Your task to perform on an android device: Do I have any events this weekend? Image 0: 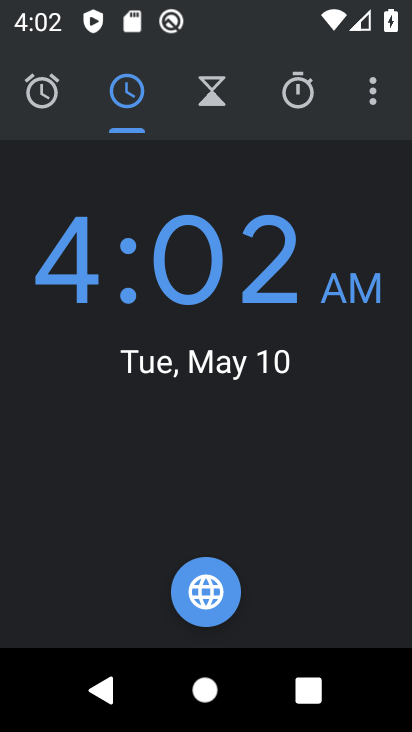
Step 0: press home button
Your task to perform on an android device: Do I have any events this weekend? Image 1: 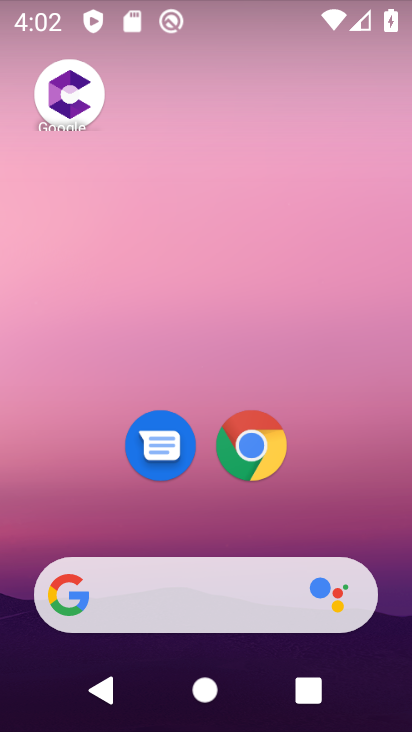
Step 1: drag from (201, 536) to (254, 14)
Your task to perform on an android device: Do I have any events this weekend? Image 2: 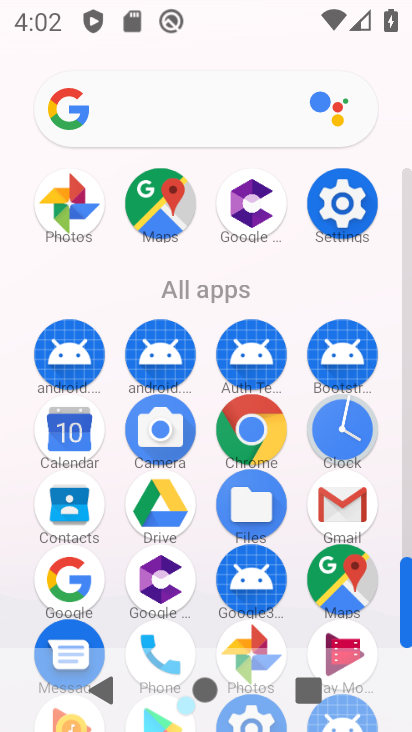
Step 2: click (72, 430)
Your task to perform on an android device: Do I have any events this weekend? Image 3: 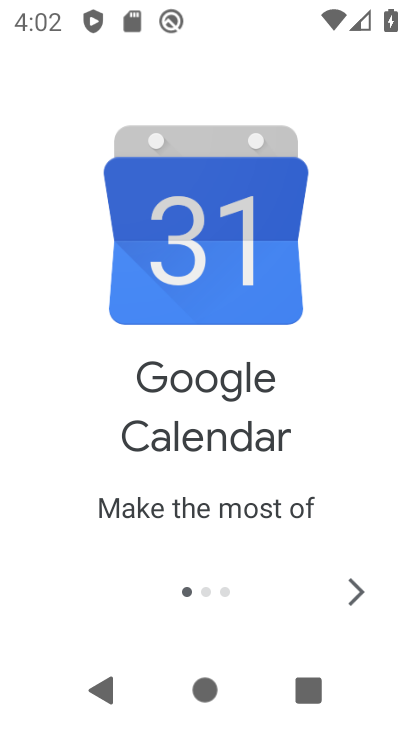
Step 3: click (341, 591)
Your task to perform on an android device: Do I have any events this weekend? Image 4: 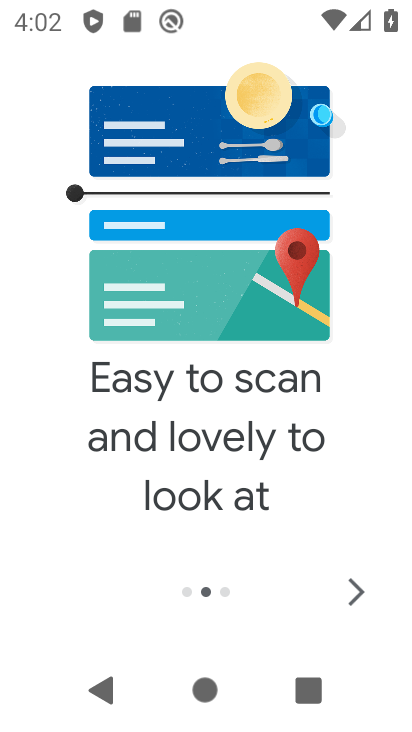
Step 4: click (356, 592)
Your task to perform on an android device: Do I have any events this weekend? Image 5: 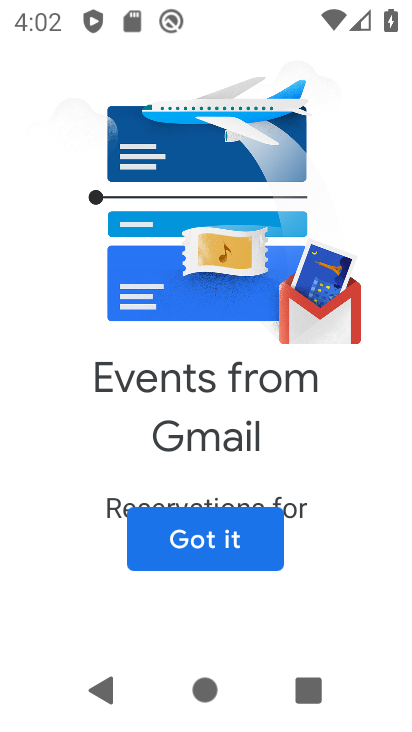
Step 5: click (356, 592)
Your task to perform on an android device: Do I have any events this weekend? Image 6: 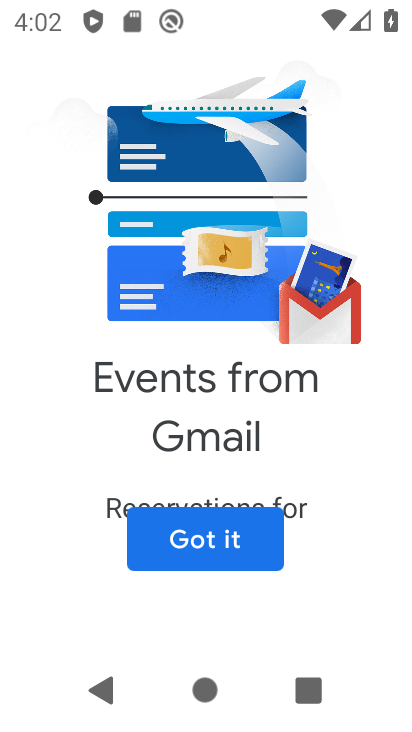
Step 6: click (215, 557)
Your task to perform on an android device: Do I have any events this weekend? Image 7: 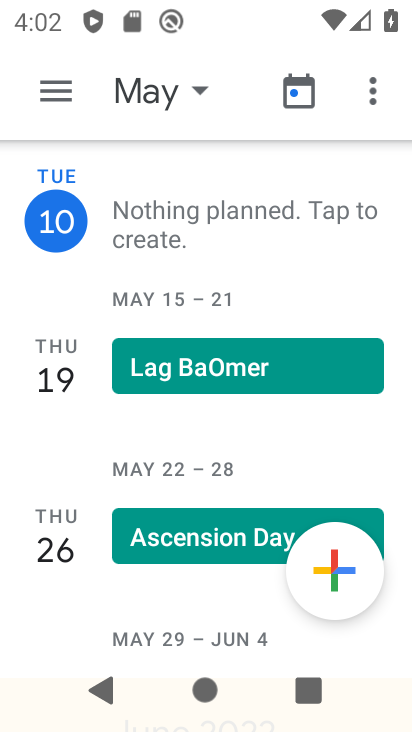
Step 7: click (58, 103)
Your task to perform on an android device: Do I have any events this weekend? Image 8: 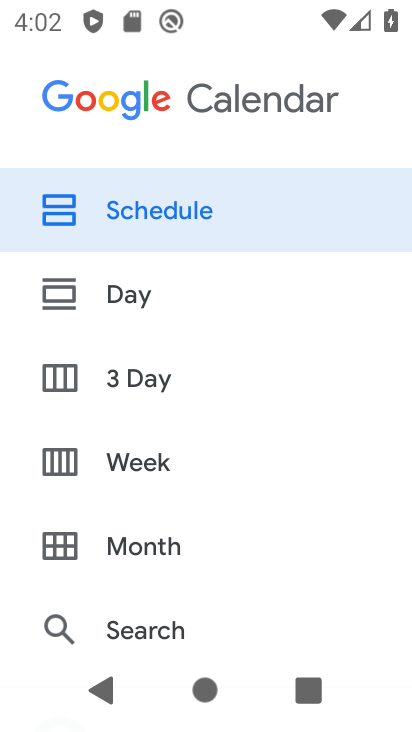
Step 8: drag from (157, 537) to (219, 296)
Your task to perform on an android device: Do I have any events this weekend? Image 9: 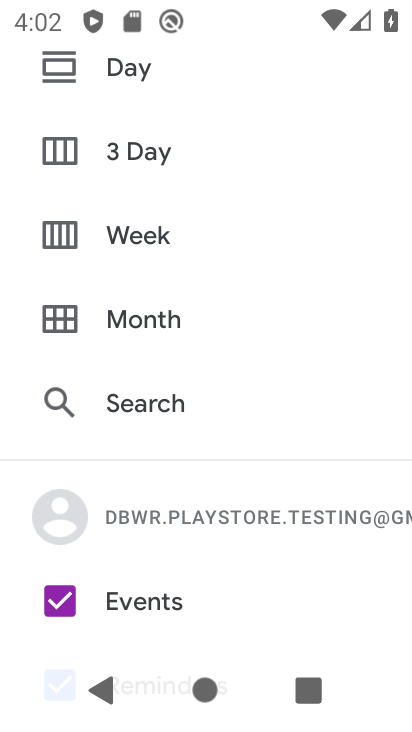
Step 9: drag from (161, 577) to (222, 219)
Your task to perform on an android device: Do I have any events this weekend? Image 10: 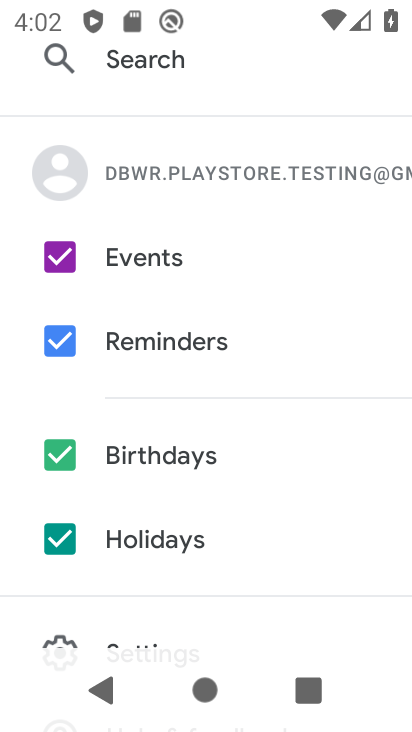
Step 10: click (136, 352)
Your task to perform on an android device: Do I have any events this weekend? Image 11: 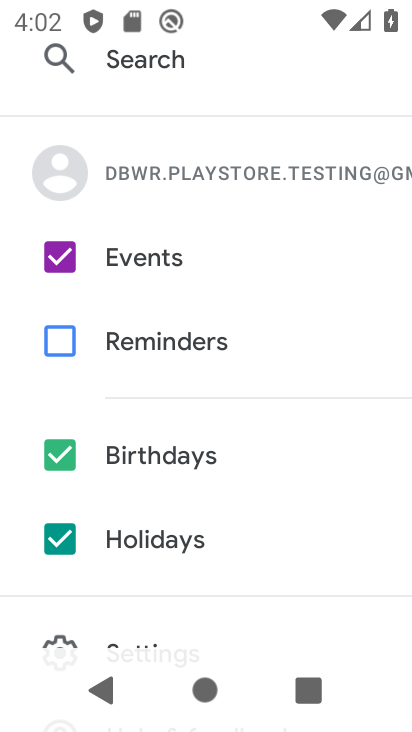
Step 11: click (119, 470)
Your task to perform on an android device: Do I have any events this weekend? Image 12: 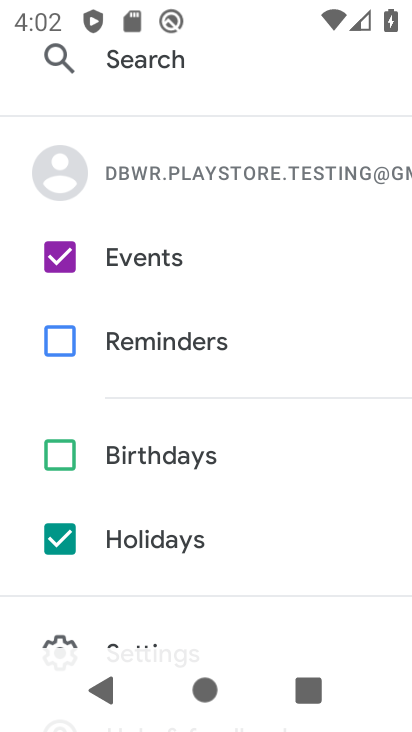
Step 12: click (109, 543)
Your task to perform on an android device: Do I have any events this weekend? Image 13: 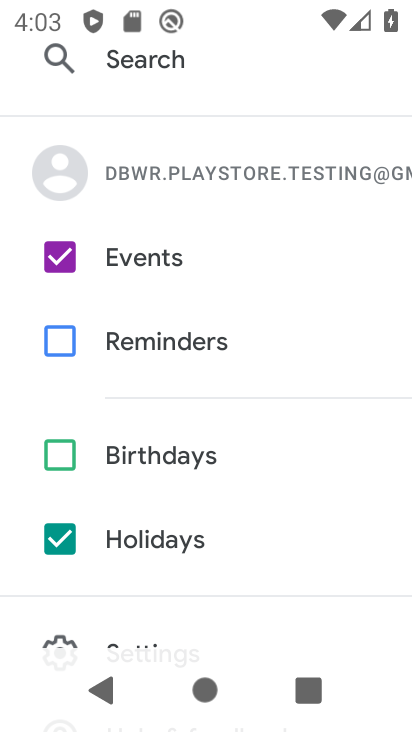
Step 13: click (145, 537)
Your task to perform on an android device: Do I have any events this weekend? Image 14: 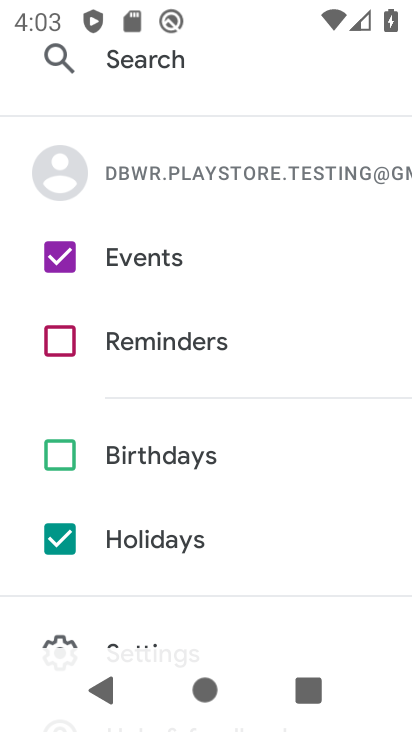
Step 14: click (64, 547)
Your task to perform on an android device: Do I have any events this weekend? Image 15: 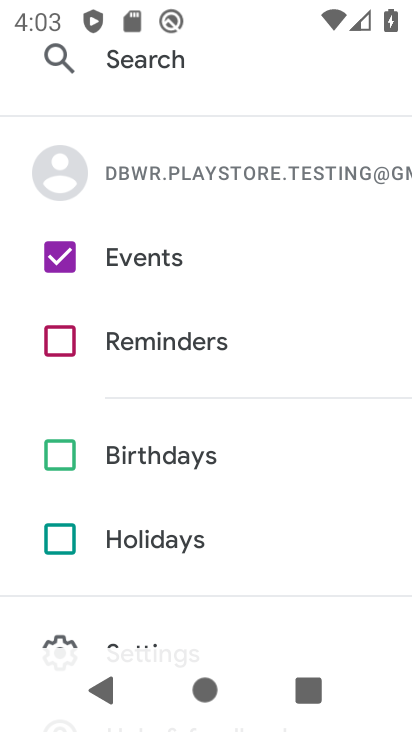
Step 15: drag from (285, 278) to (308, 693)
Your task to perform on an android device: Do I have any events this weekend? Image 16: 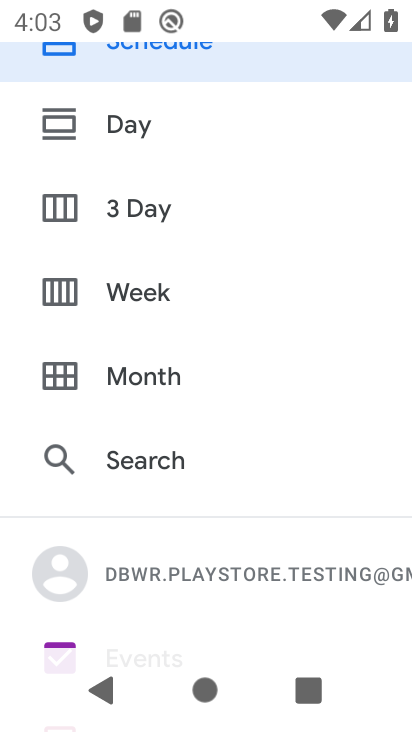
Step 16: click (164, 306)
Your task to perform on an android device: Do I have any events this weekend? Image 17: 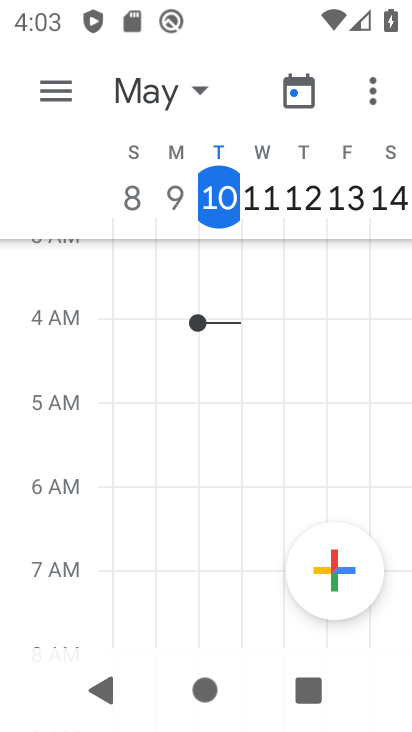
Step 17: task complete